Your task to perform on an android device: empty trash in the gmail app Image 0: 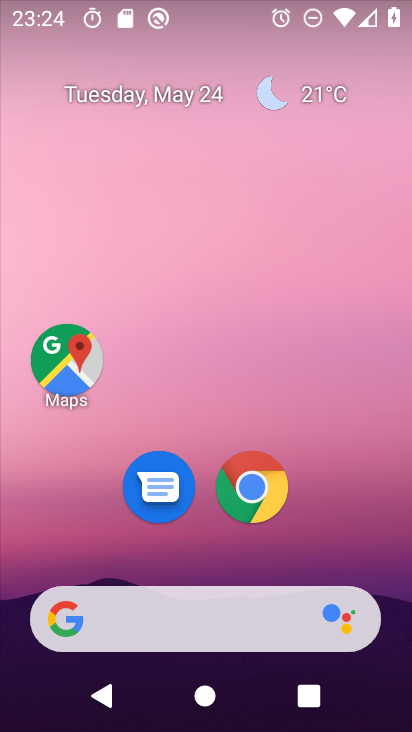
Step 0: drag from (363, 517) to (172, 0)
Your task to perform on an android device: empty trash in the gmail app Image 1: 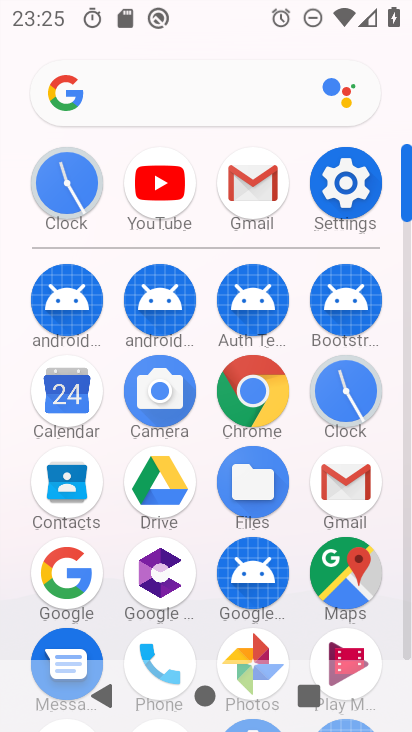
Step 1: click (257, 185)
Your task to perform on an android device: empty trash in the gmail app Image 2: 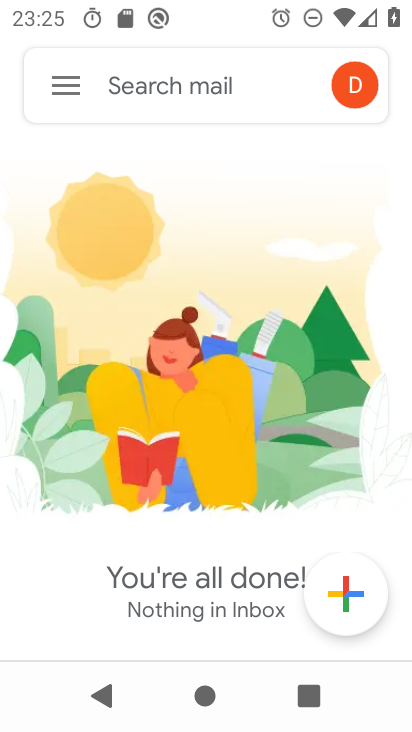
Step 2: click (64, 91)
Your task to perform on an android device: empty trash in the gmail app Image 3: 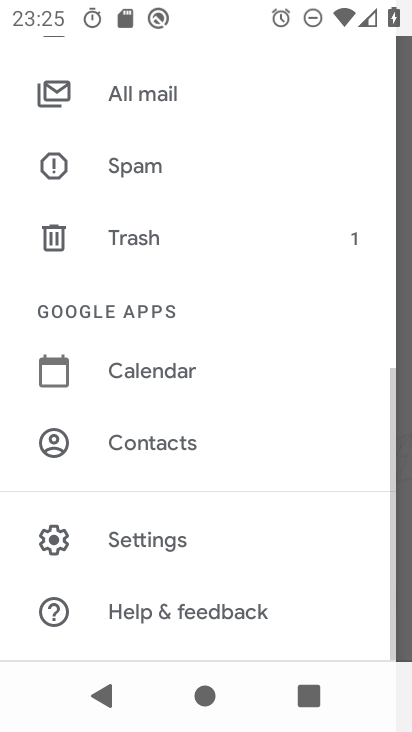
Step 3: click (116, 251)
Your task to perform on an android device: empty trash in the gmail app Image 4: 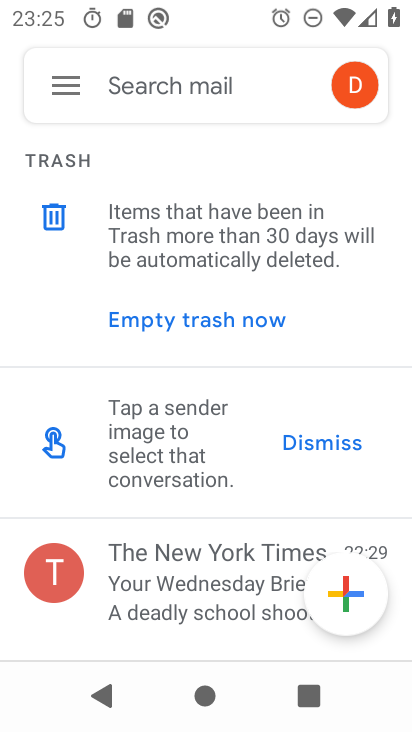
Step 4: click (175, 316)
Your task to perform on an android device: empty trash in the gmail app Image 5: 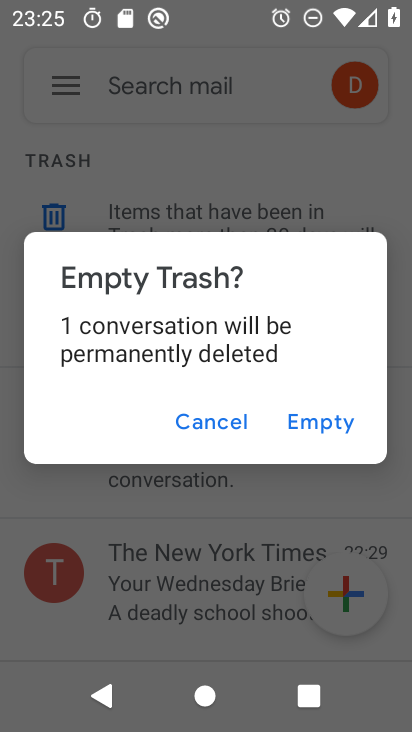
Step 5: click (312, 425)
Your task to perform on an android device: empty trash in the gmail app Image 6: 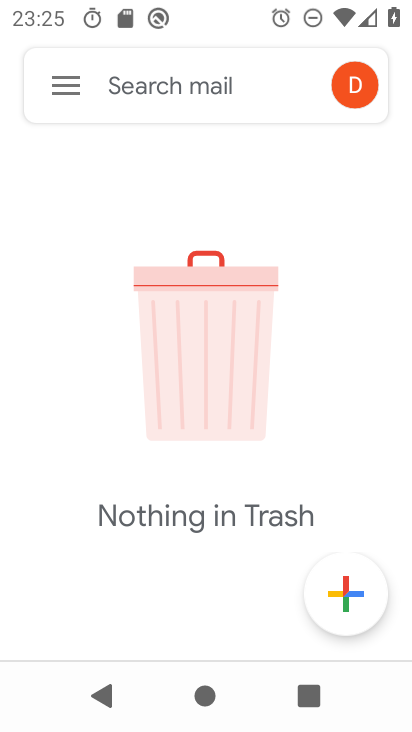
Step 6: task complete